Your task to perform on an android device: Show the shopping cart on ebay. Add beats solo 3 to the cart on ebay, then select checkout. Image 0: 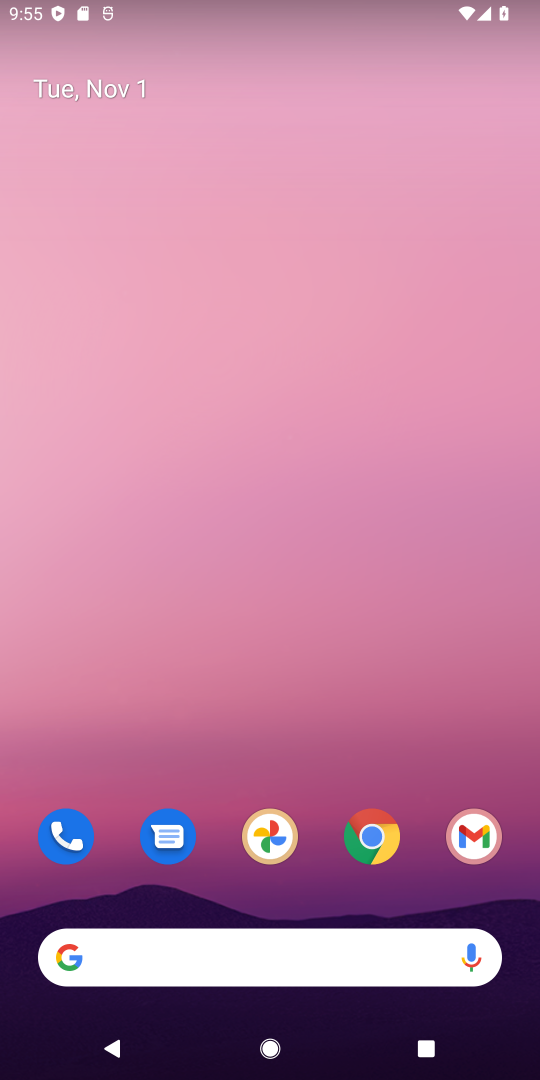
Step 0: click (363, 849)
Your task to perform on an android device: Show the shopping cart on ebay. Add beats solo 3 to the cart on ebay, then select checkout. Image 1: 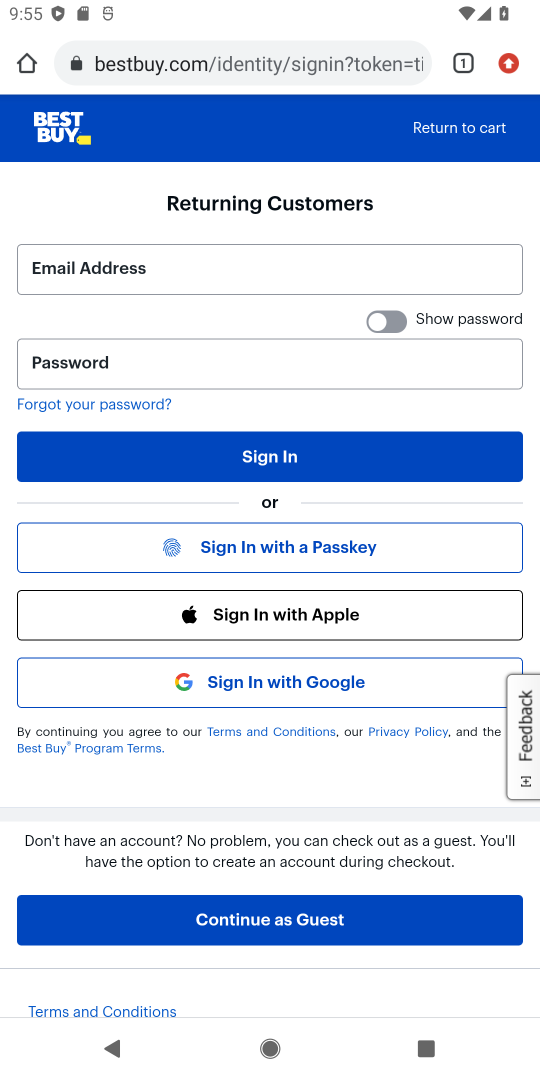
Step 1: click (214, 75)
Your task to perform on an android device: Show the shopping cart on ebay. Add beats solo 3 to the cart on ebay, then select checkout. Image 2: 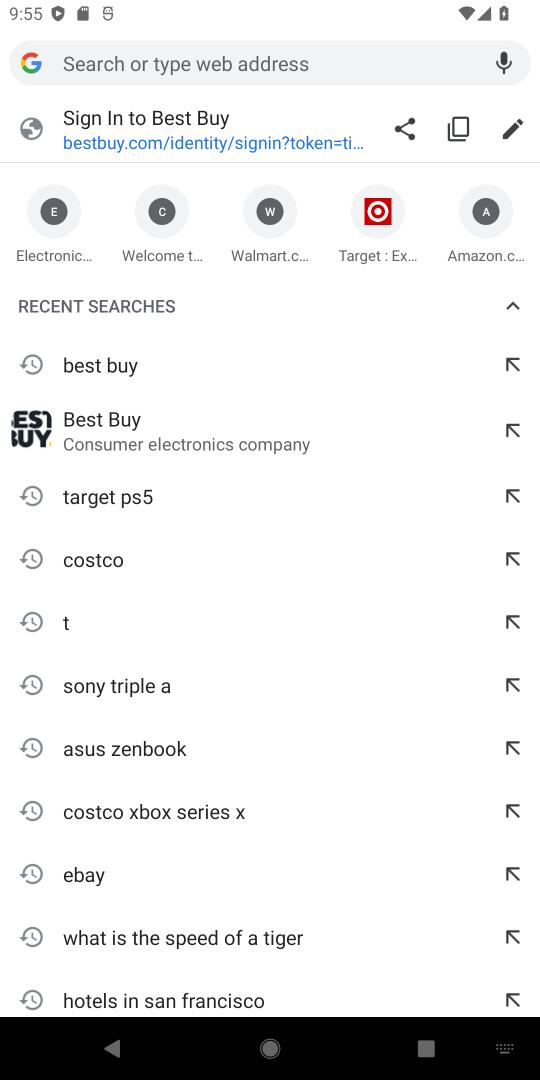
Step 2: type "ebay"
Your task to perform on an android device: Show the shopping cart on ebay. Add beats solo 3 to the cart on ebay, then select checkout. Image 3: 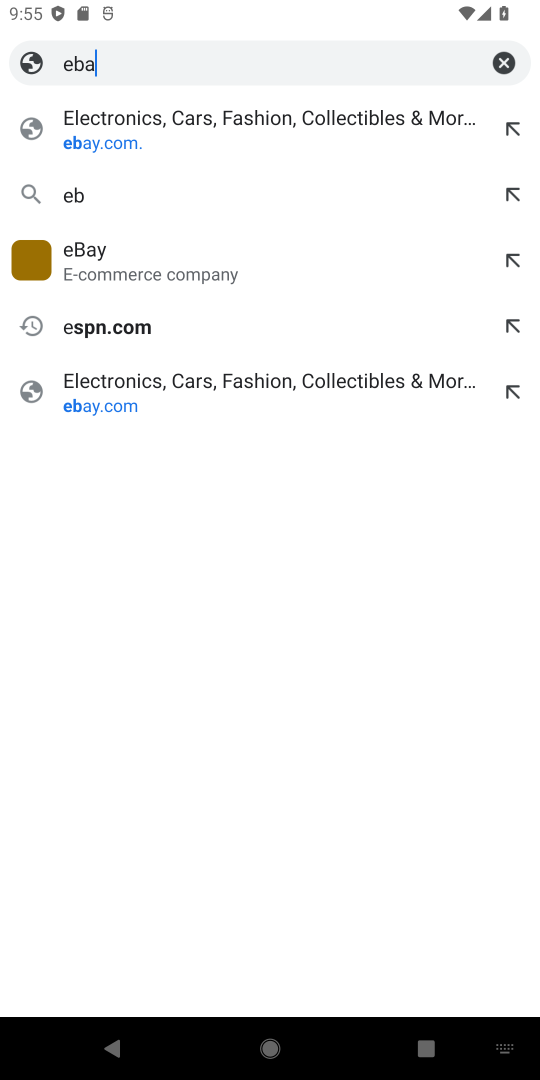
Step 3: type ""
Your task to perform on an android device: Show the shopping cart on ebay. Add beats solo 3 to the cart on ebay, then select checkout. Image 4: 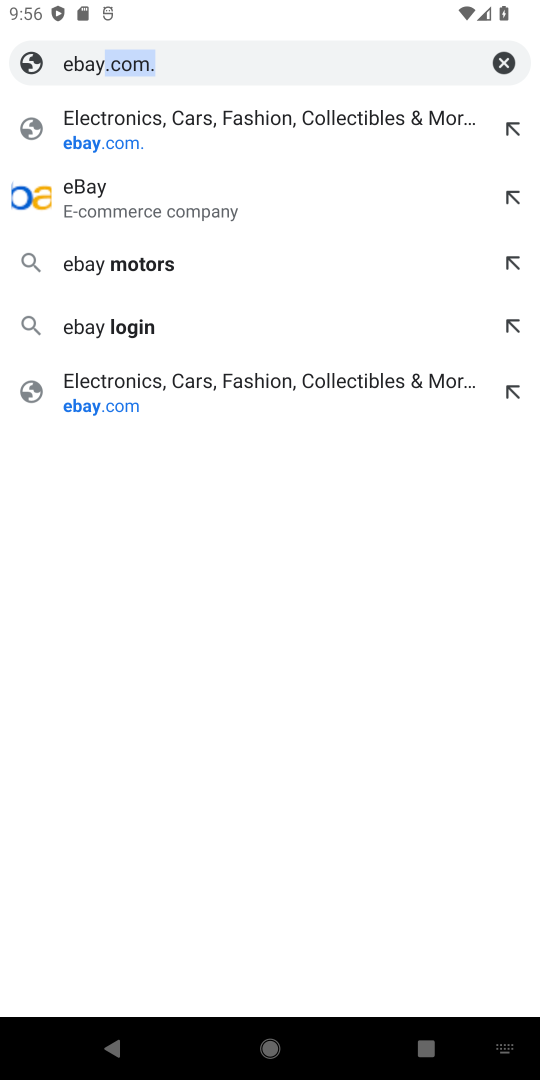
Step 4: click (161, 118)
Your task to perform on an android device: Show the shopping cart on ebay. Add beats solo 3 to the cart on ebay, then select checkout. Image 5: 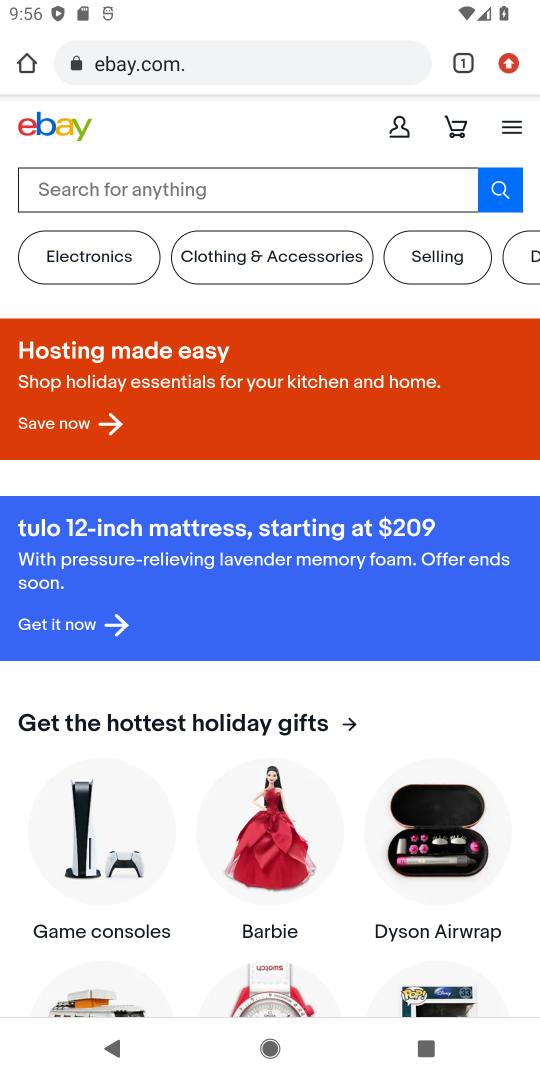
Step 5: click (146, 173)
Your task to perform on an android device: Show the shopping cart on ebay. Add beats solo 3 to the cart on ebay, then select checkout. Image 6: 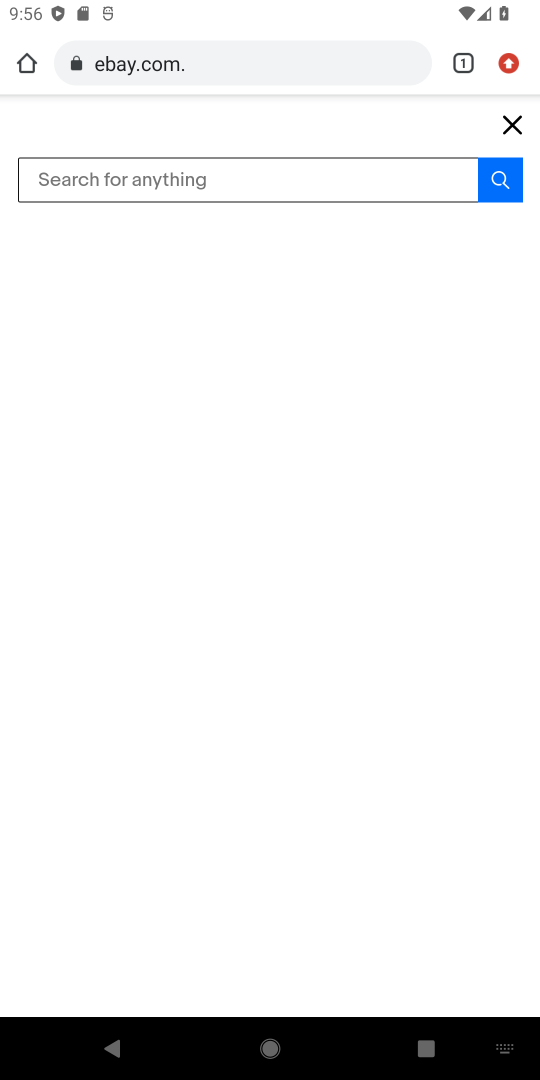
Step 6: type "beats solo 3"
Your task to perform on an android device: Show the shopping cart on ebay. Add beats solo 3 to the cart on ebay, then select checkout. Image 7: 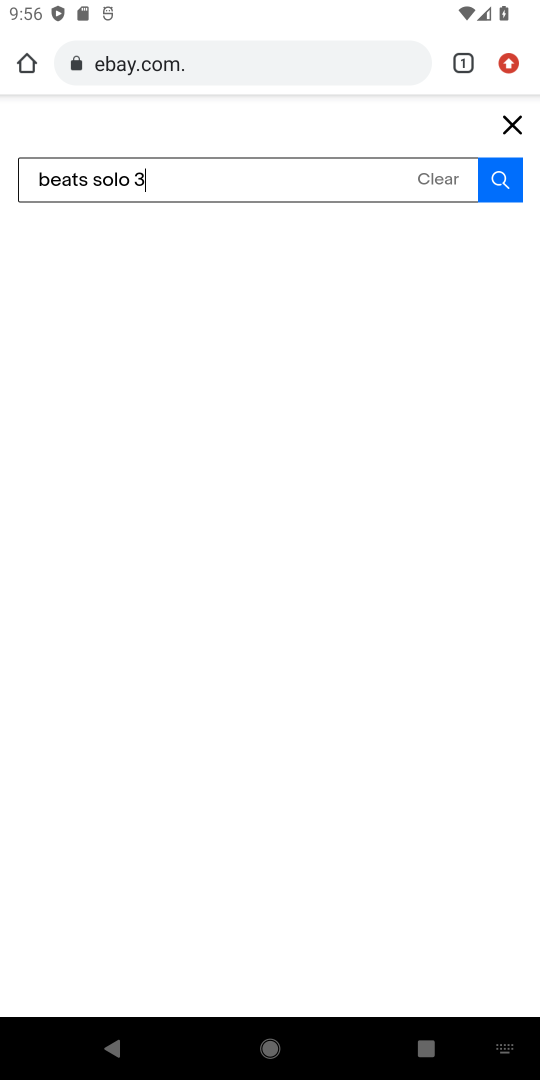
Step 7: type ""
Your task to perform on an android device: Show the shopping cart on ebay. Add beats solo 3 to the cart on ebay, then select checkout. Image 8: 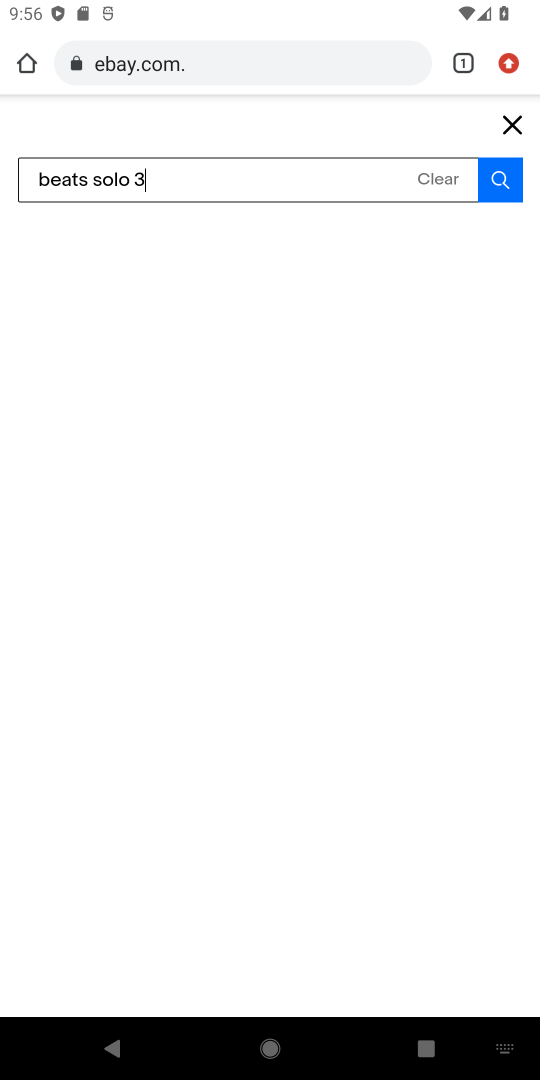
Step 8: click (494, 184)
Your task to perform on an android device: Show the shopping cart on ebay. Add beats solo 3 to the cart on ebay, then select checkout. Image 9: 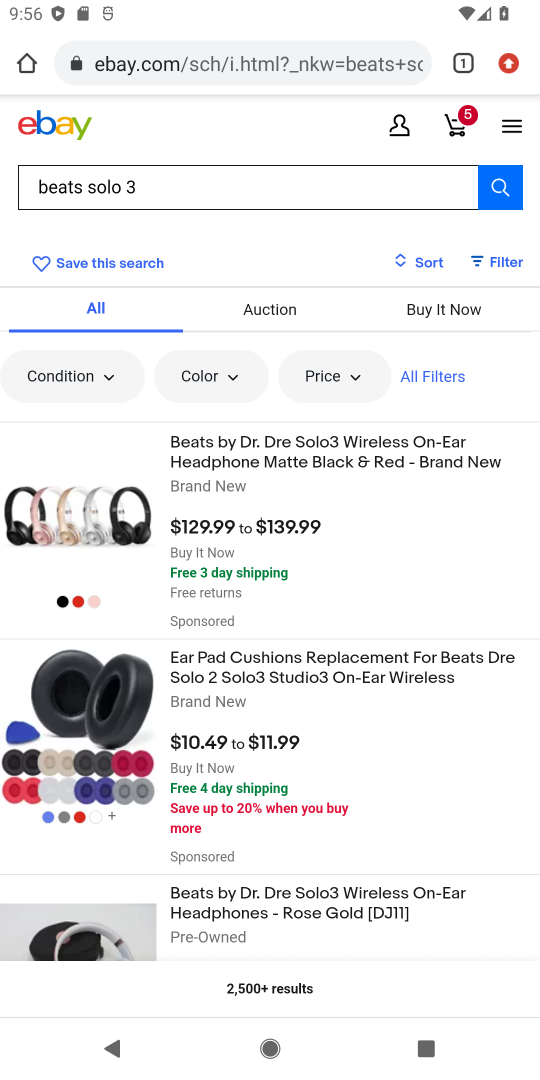
Step 9: click (381, 451)
Your task to perform on an android device: Show the shopping cart on ebay. Add beats solo 3 to the cart on ebay, then select checkout. Image 10: 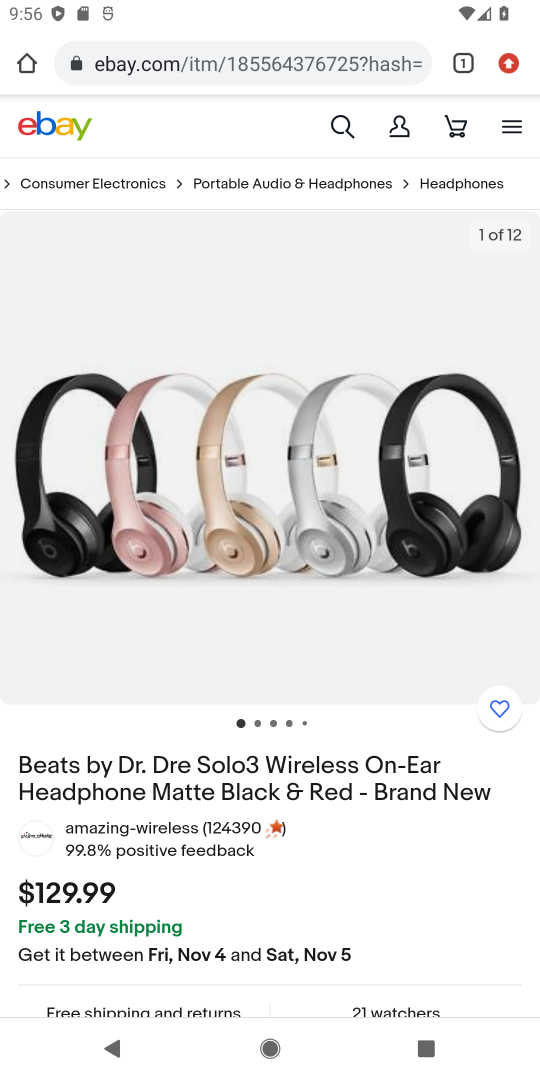
Step 10: drag from (350, 773) to (340, 360)
Your task to perform on an android device: Show the shopping cart on ebay. Add beats solo 3 to the cart on ebay, then select checkout. Image 11: 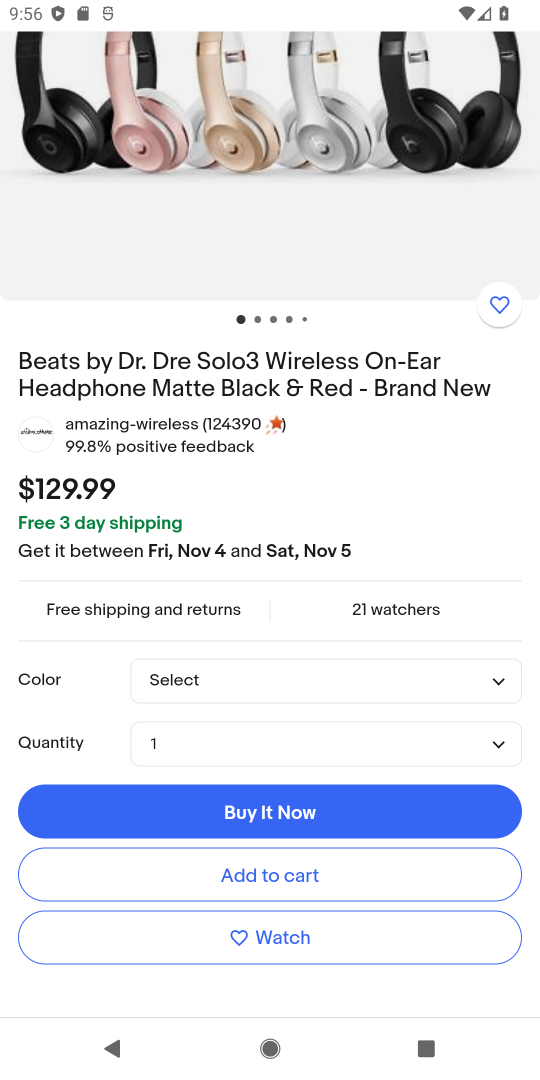
Step 11: click (288, 878)
Your task to perform on an android device: Show the shopping cart on ebay. Add beats solo 3 to the cart on ebay, then select checkout. Image 12: 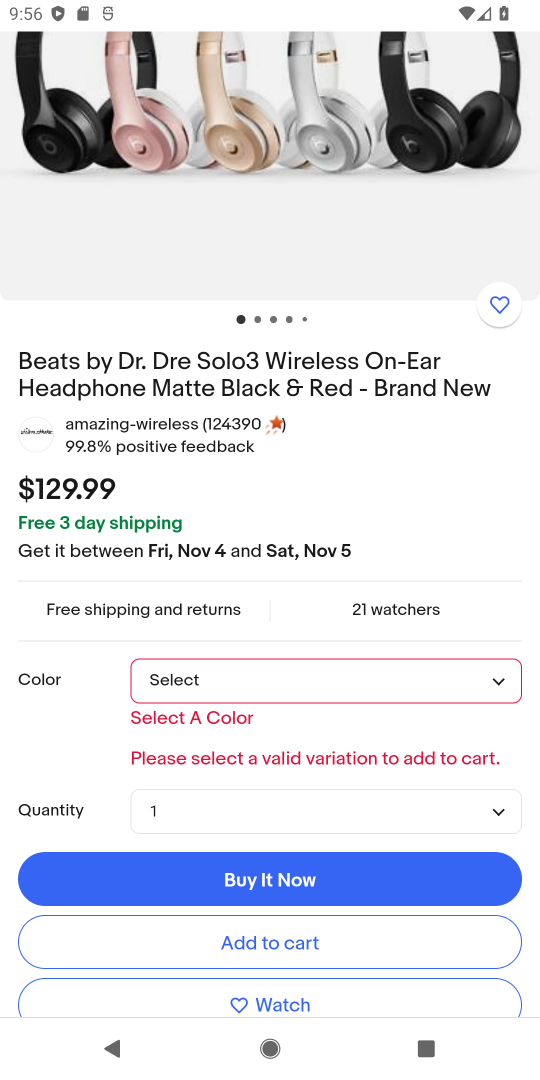
Step 12: click (284, 942)
Your task to perform on an android device: Show the shopping cart on ebay. Add beats solo 3 to the cart on ebay, then select checkout. Image 13: 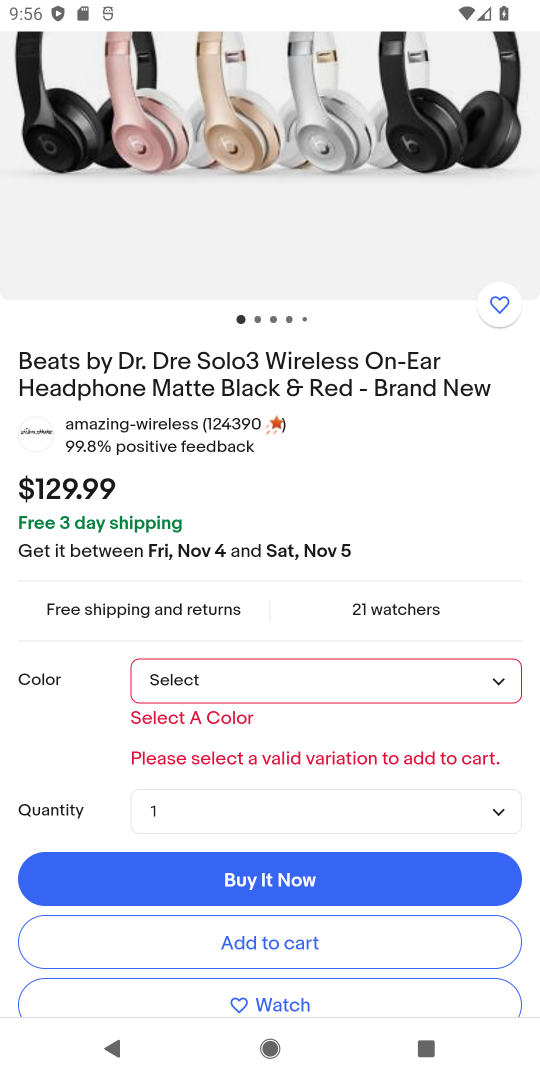
Step 13: click (284, 942)
Your task to perform on an android device: Show the shopping cart on ebay. Add beats solo 3 to the cart on ebay, then select checkout. Image 14: 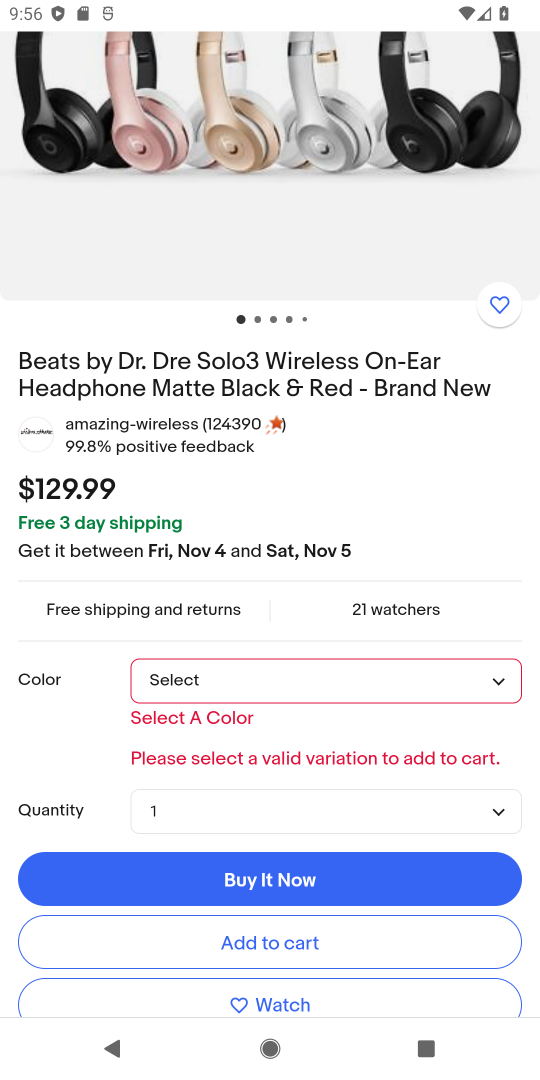
Step 14: click (328, 685)
Your task to perform on an android device: Show the shopping cart on ebay. Add beats solo 3 to the cart on ebay, then select checkout. Image 15: 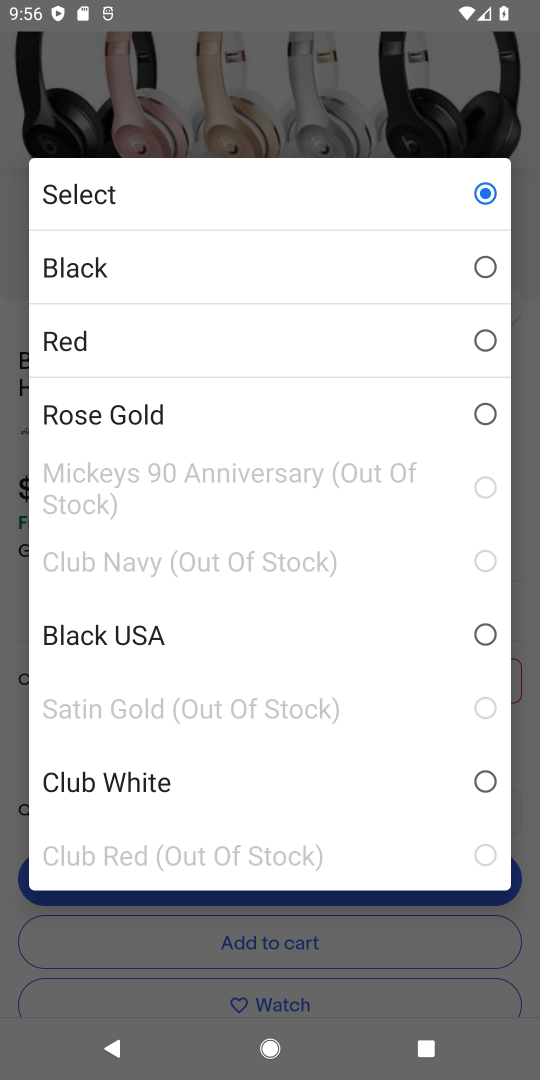
Step 15: click (276, 403)
Your task to perform on an android device: Show the shopping cart on ebay. Add beats solo 3 to the cart on ebay, then select checkout. Image 16: 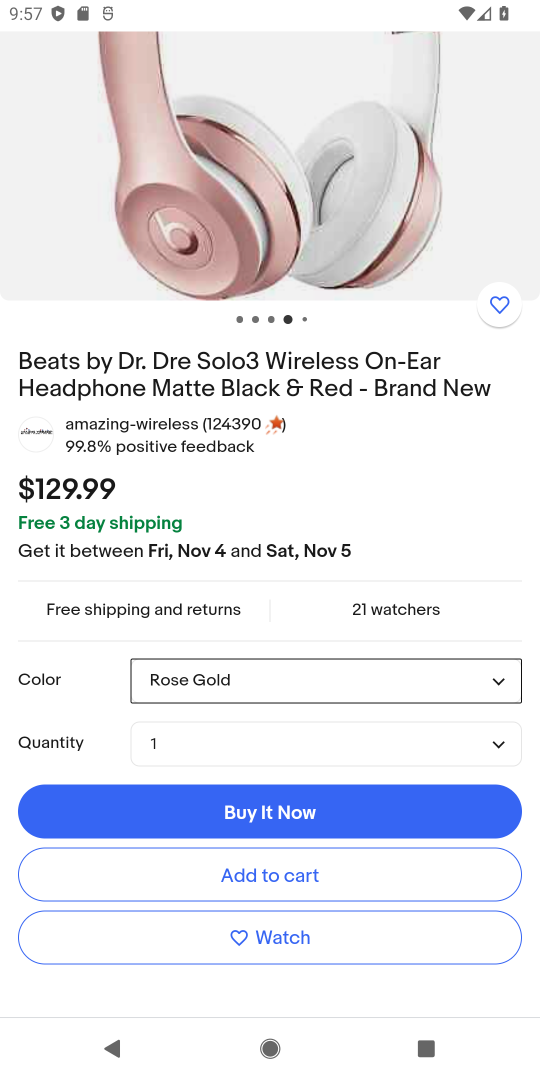
Step 16: click (227, 810)
Your task to perform on an android device: Show the shopping cart on ebay. Add beats solo 3 to the cart on ebay, then select checkout. Image 17: 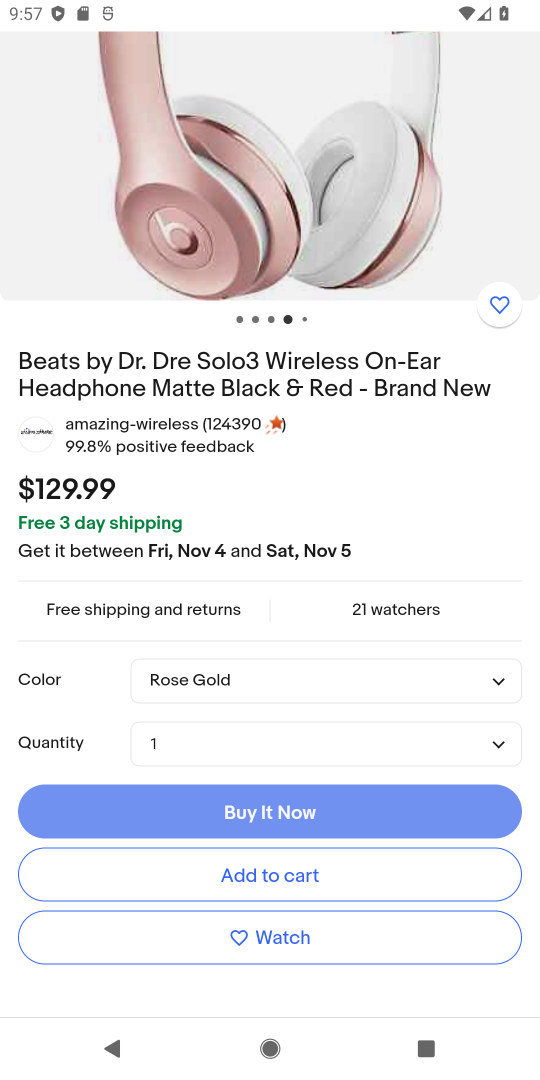
Step 17: click (212, 908)
Your task to perform on an android device: Show the shopping cart on ebay. Add beats solo 3 to the cart on ebay, then select checkout. Image 18: 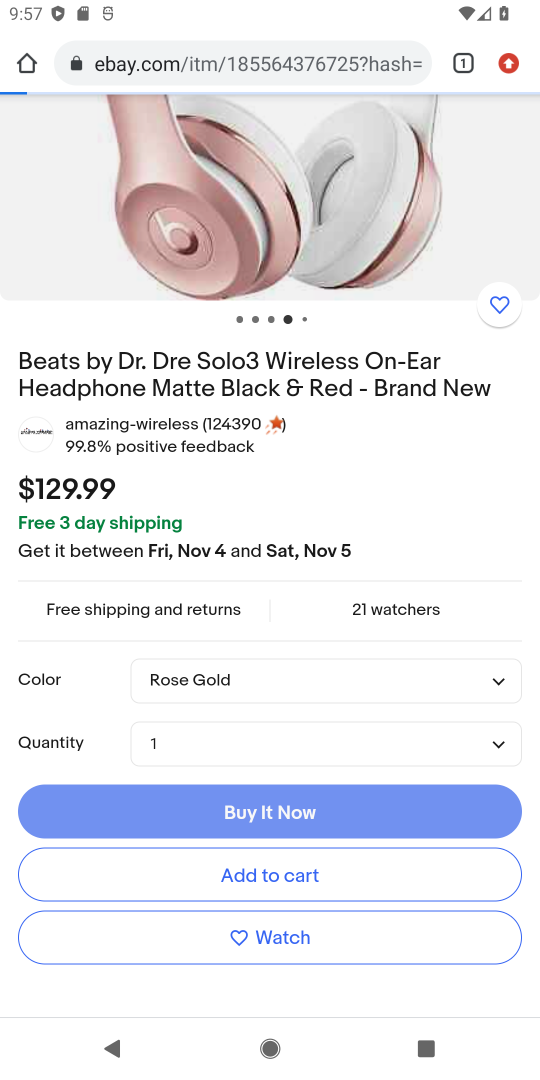
Step 18: click (217, 874)
Your task to perform on an android device: Show the shopping cart on ebay. Add beats solo 3 to the cart on ebay, then select checkout. Image 19: 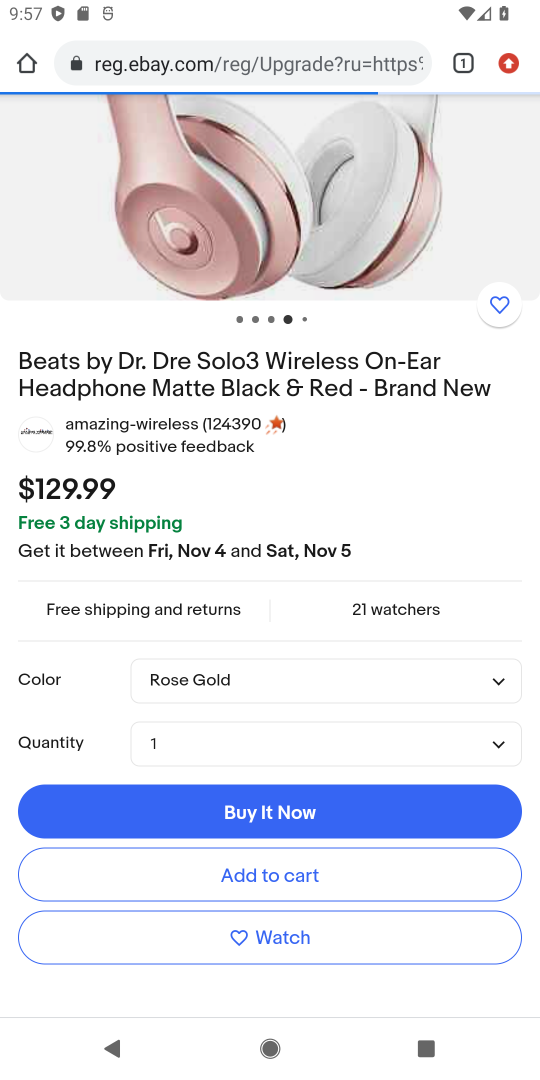
Step 19: click (217, 874)
Your task to perform on an android device: Show the shopping cart on ebay. Add beats solo 3 to the cart on ebay, then select checkout. Image 20: 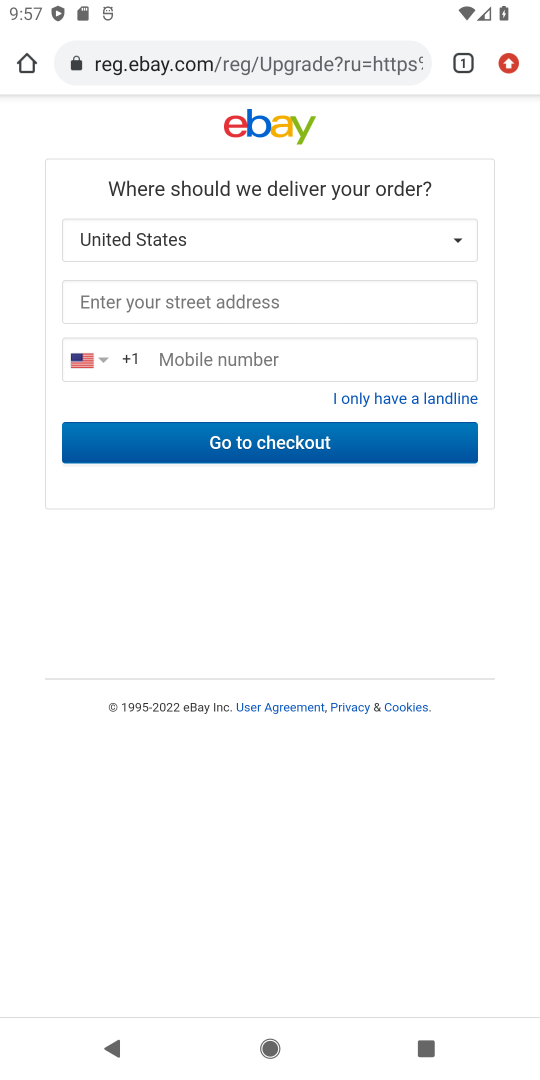
Step 20: click (301, 452)
Your task to perform on an android device: Show the shopping cart on ebay. Add beats solo 3 to the cart on ebay, then select checkout. Image 21: 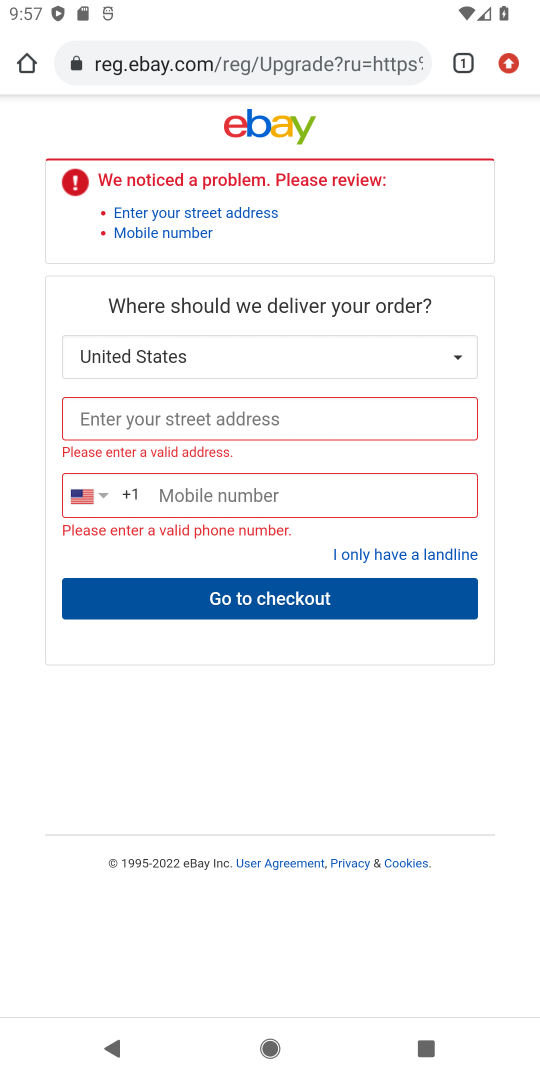
Step 21: press back button
Your task to perform on an android device: Show the shopping cart on ebay. Add beats solo 3 to the cart on ebay, then select checkout. Image 22: 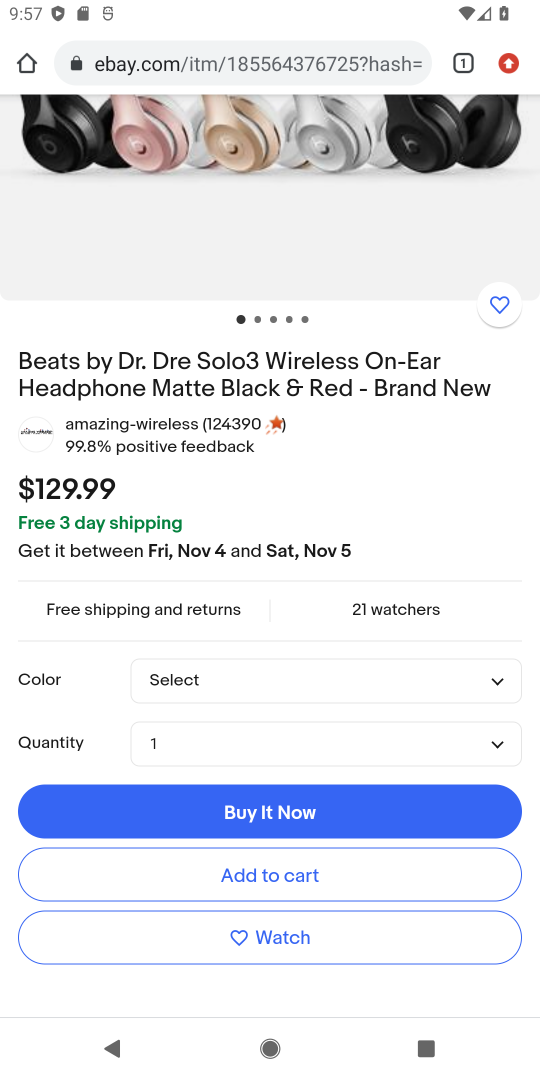
Step 22: click (348, 886)
Your task to perform on an android device: Show the shopping cart on ebay. Add beats solo 3 to the cart on ebay, then select checkout. Image 23: 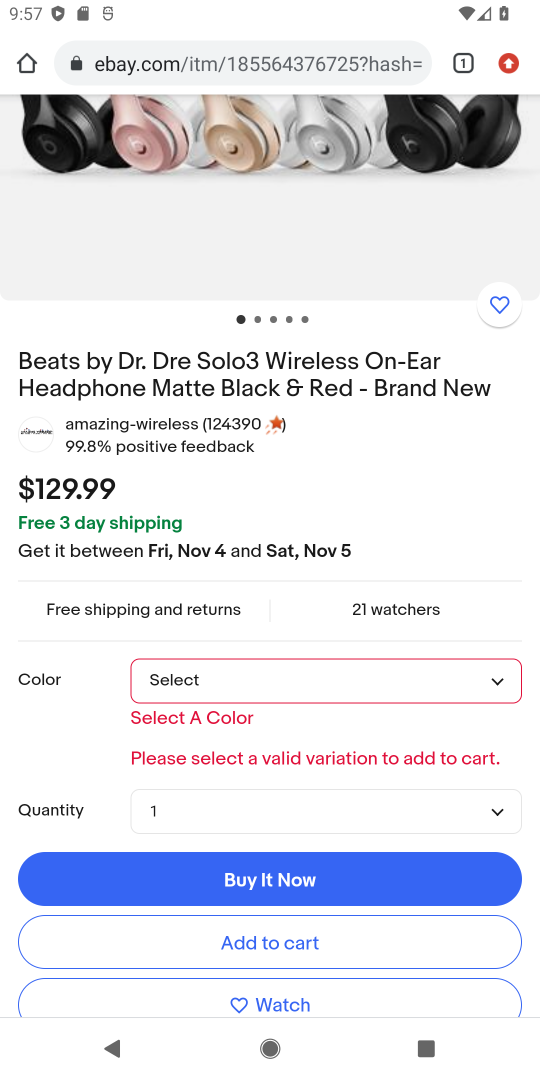
Step 23: click (339, 661)
Your task to perform on an android device: Show the shopping cart on ebay. Add beats solo 3 to the cart on ebay, then select checkout. Image 24: 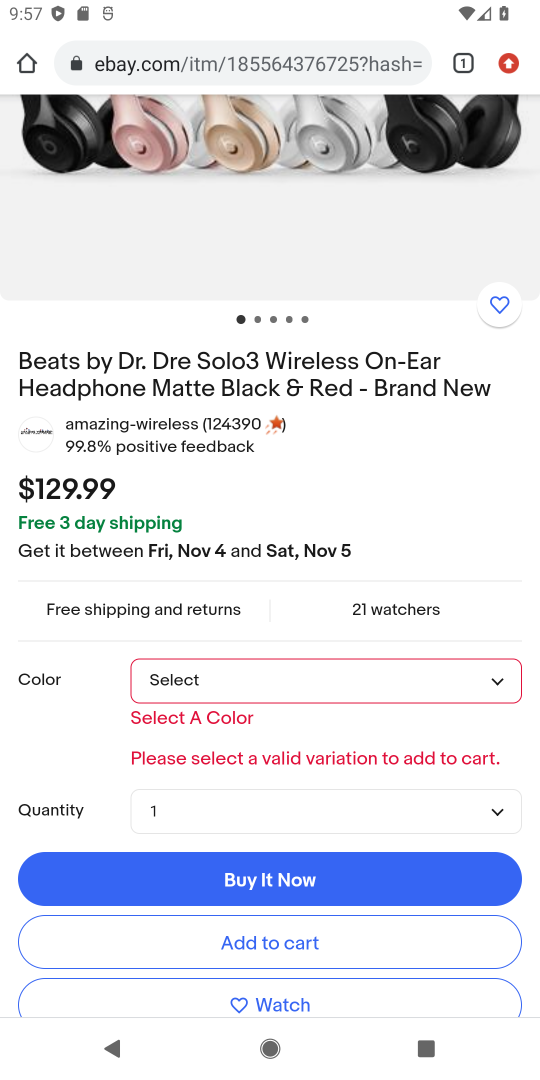
Step 24: click (322, 683)
Your task to perform on an android device: Show the shopping cart on ebay. Add beats solo 3 to the cart on ebay, then select checkout. Image 25: 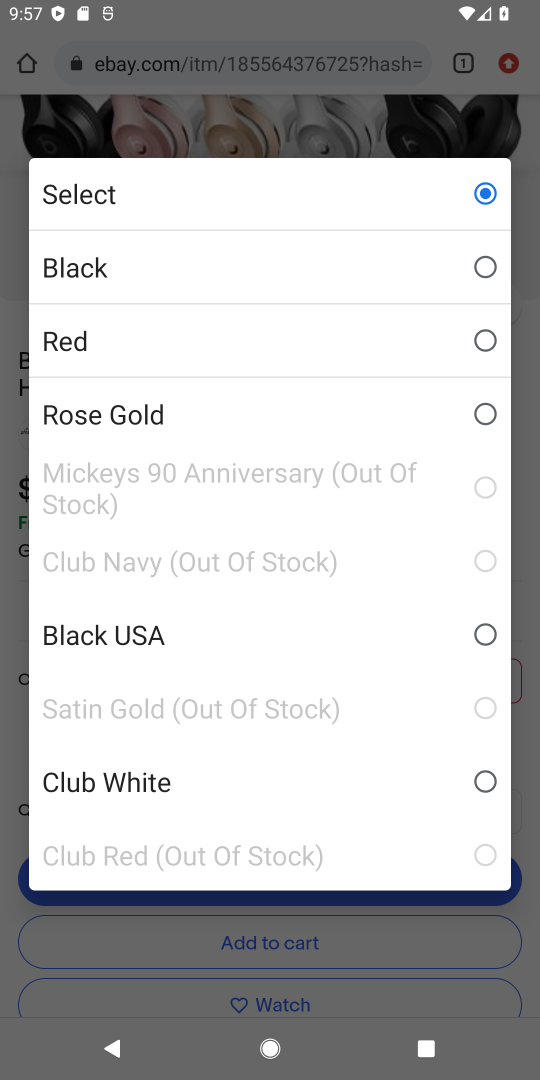
Step 25: click (241, 435)
Your task to perform on an android device: Show the shopping cart on ebay. Add beats solo 3 to the cart on ebay, then select checkout. Image 26: 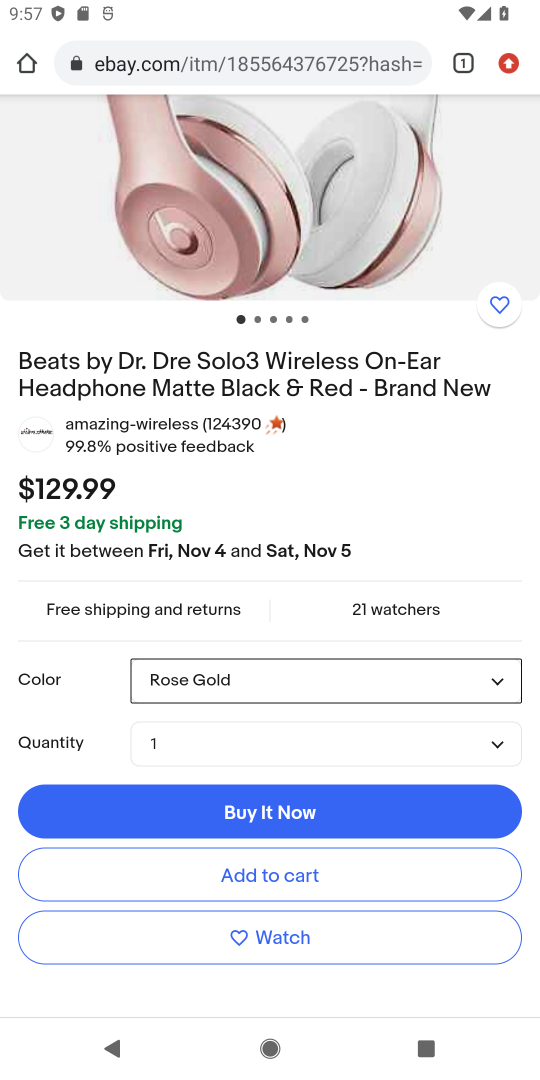
Step 26: click (219, 873)
Your task to perform on an android device: Show the shopping cart on ebay. Add beats solo 3 to the cart on ebay, then select checkout. Image 27: 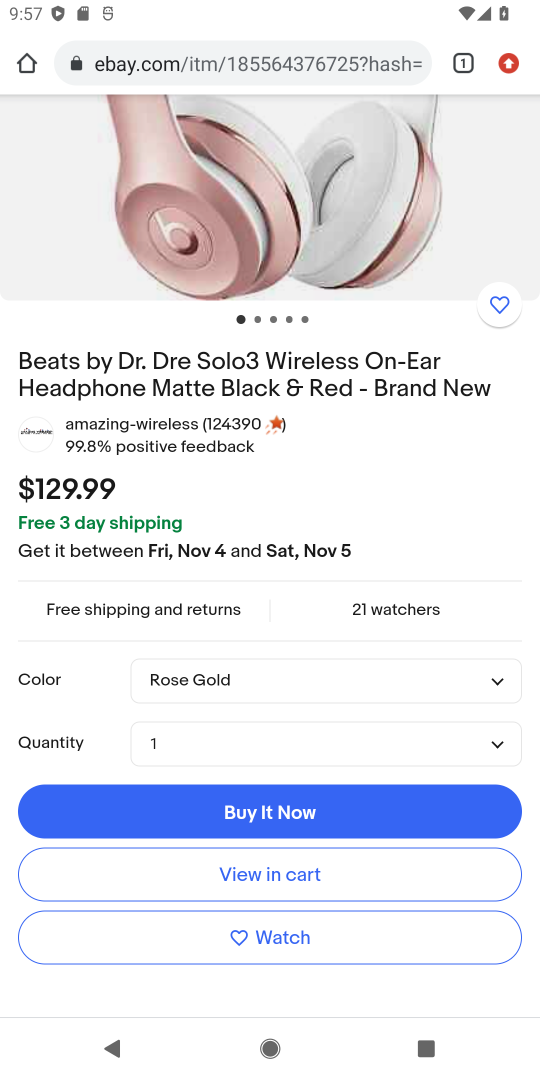
Step 27: task complete